Your task to perform on an android device: turn on showing notifications on the lock screen Image 0: 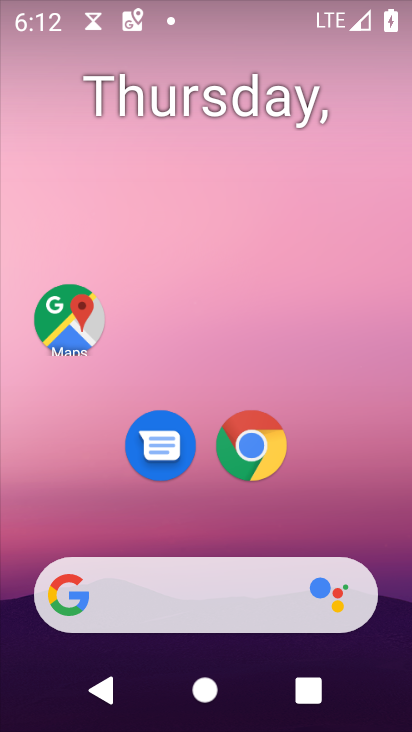
Step 0: drag from (332, 488) to (296, 141)
Your task to perform on an android device: turn on showing notifications on the lock screen Image 1: 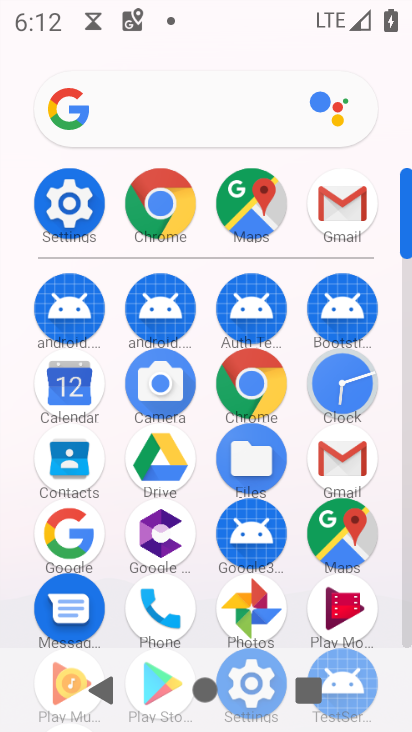
Step 1: click (63, 209)
Your task to perform on an android device: turn on showing notifications on the lock screen Image 2: 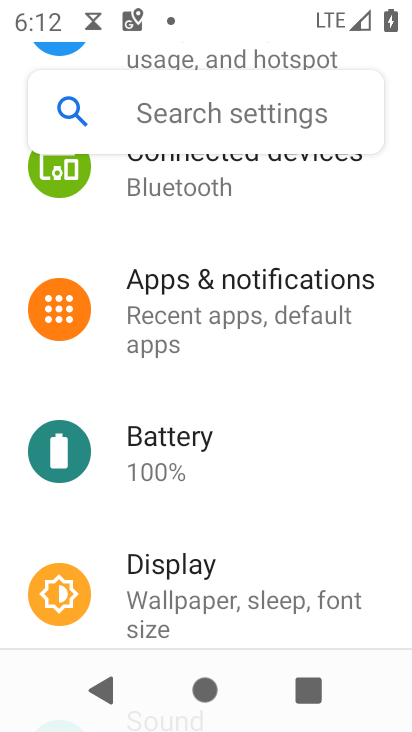
Step 2: click (263, 306)
Your task to perform on an android device: turn on showing notifications on the lock screen Image 3: 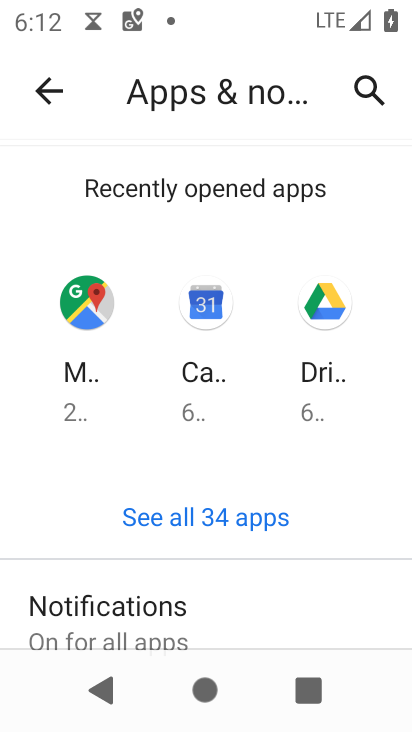
Step 3: click (116, 615)
Your task to perform on an android device: turn on showing notifications on the lock screen Image 4: 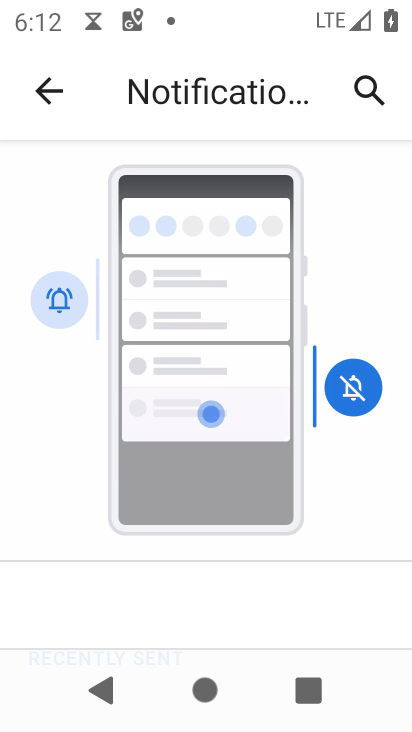
Step 4: drag from (303, 620) to (352, 130)
Your task to perform on an android device: turn on showing notifications on the lock screen Image 5: 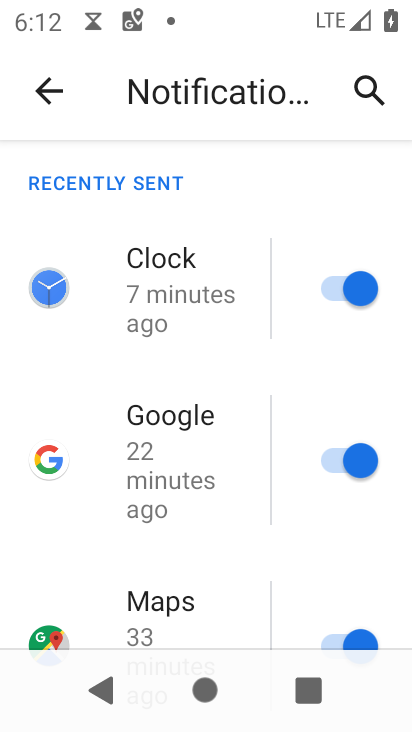
Step 5: drag from (256, 602) to (267, 185)
Your task to perform on an android device: turn on showing notifications on the lock screen Image 6: 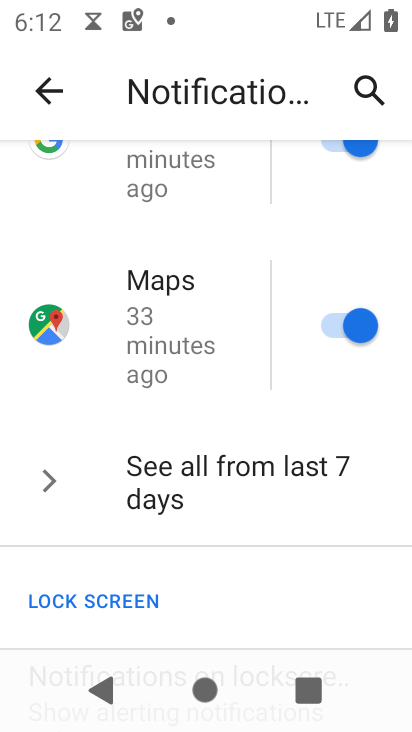
Step 6: drag from (192, 595) to (240, 203)
Your task to perform on an android device: turn on showing notifications on the lock screen Image 7: 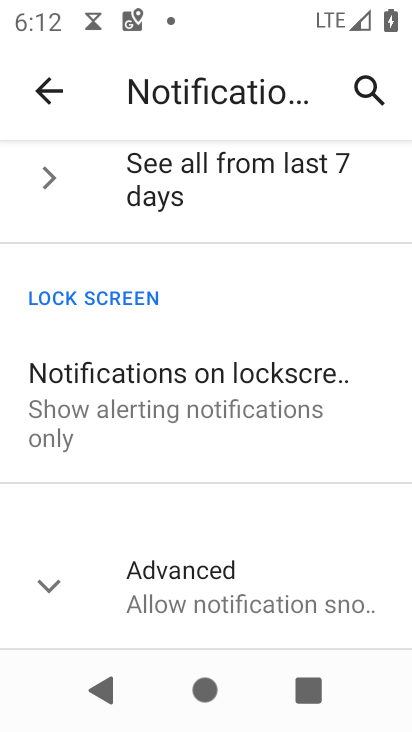
Step 7: click (164, 387)
Your task to perform on an android device: turn on showing notifications on the lock screen Image 8: 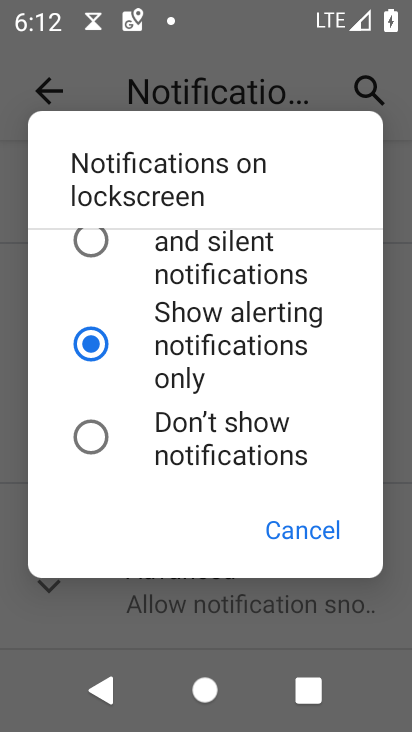
Step 8: task complete